Your task to perform on an android device: Search for "custom wallet" on Etsy. Image 0: 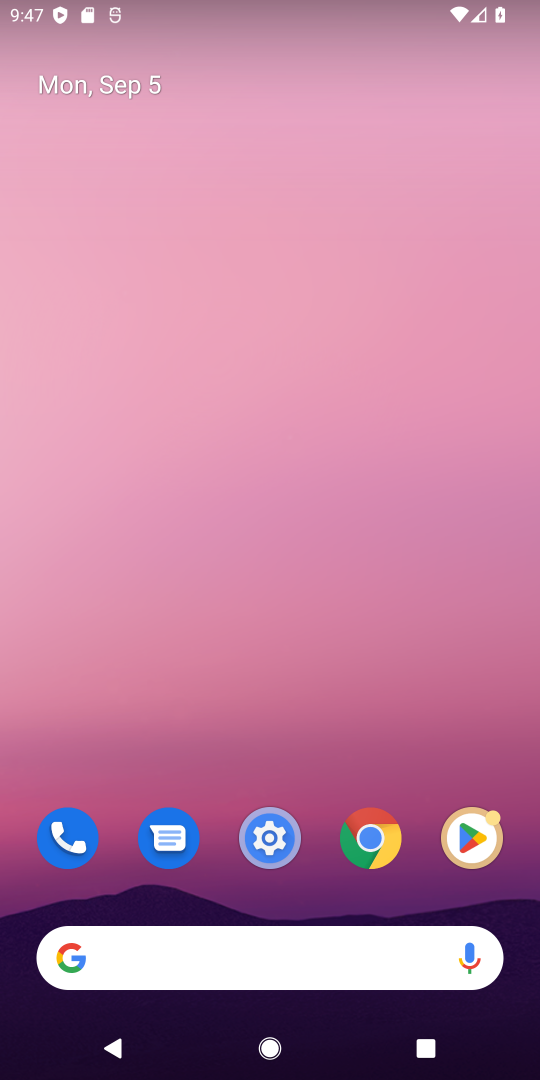
Step 0: click (281, 943)
Your task to perform on an android device: Search for "custom wallet" on Etsy. Image 1: 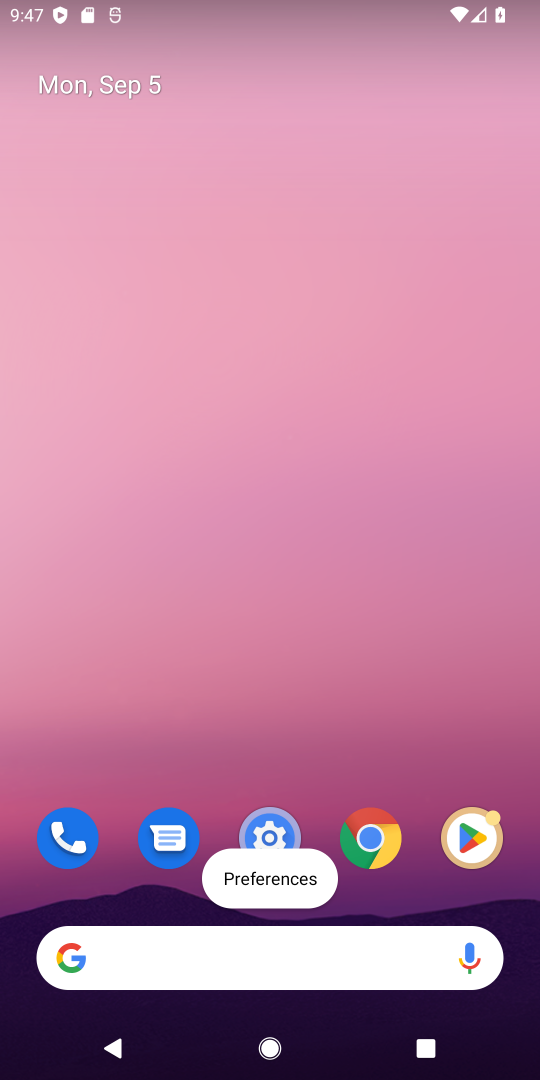
Step 1: click (281, 950)
Your task to perform on an android device: Search for "custom wallet" on Etsy. Image 2: 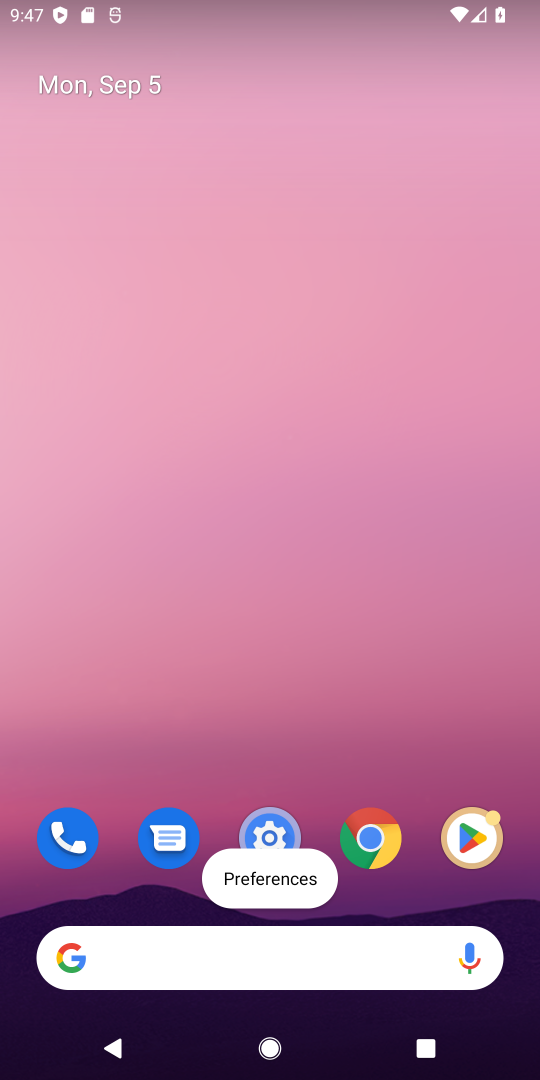
Step 2: click (291, 950)
Your task to perform on an android device: Search for "custom wallet" on Etsy. Image 3: 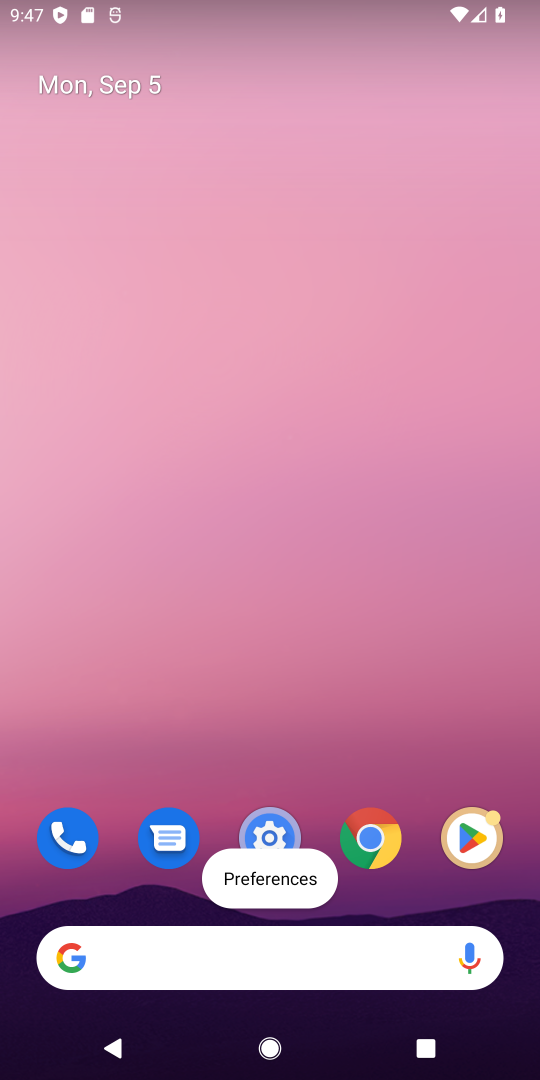
Step 3: click (298, 952)
Your task to perform on an android device: Search for "custom wallet" on Etsy. Image 4: 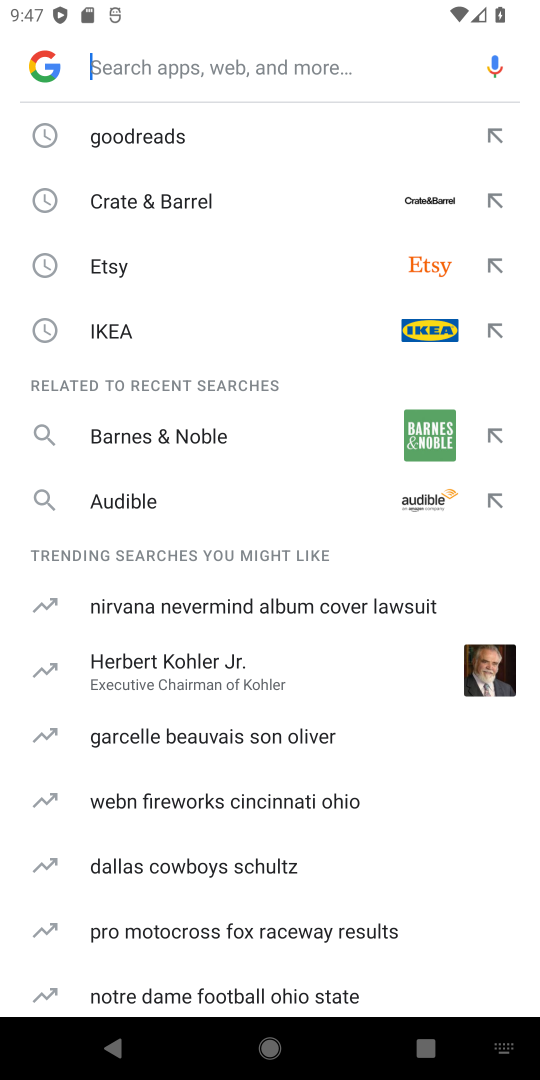
Step 4: click (175, 275)
Your task to perform on an android device: Search for "custom wallet" on Etsy. Image 5: 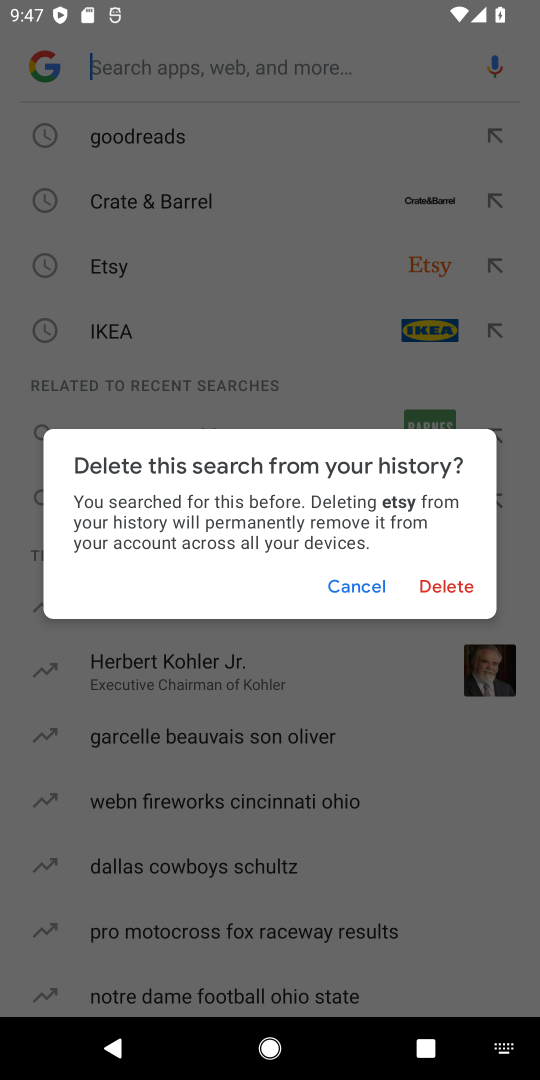
Step 5: click (339, 579)
Your task to perform on an android device: Search for "custom wallet" on Etsy. Image 6: 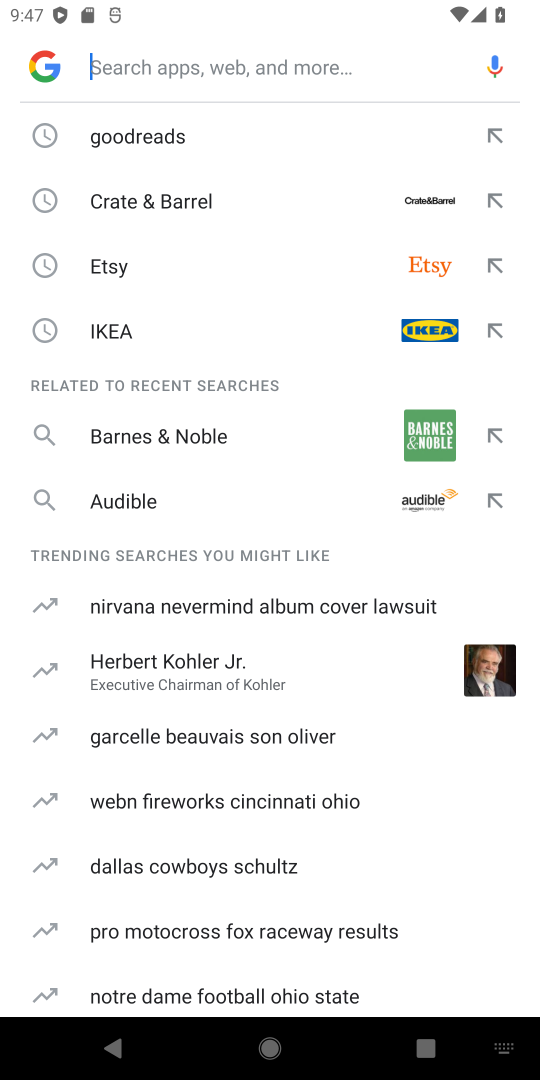
Step 6: click (181, 268)
Your task to perform on an android device: Search for "custom wallet" on Etsy. Image 7: 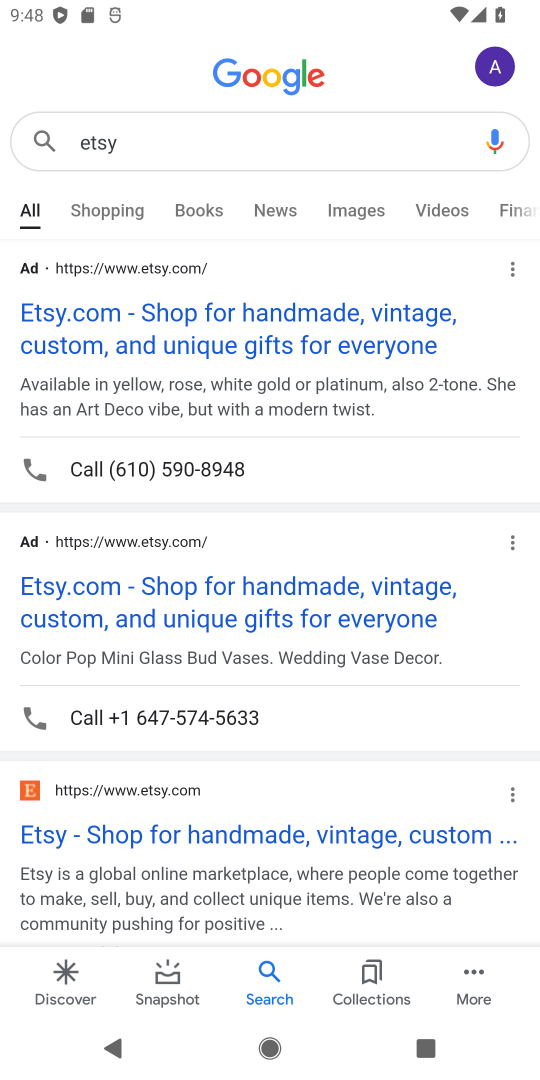
Step 7: click (161, 817)
Your task to perform on an android device: Search for "custom wallet" on Etsy. Image 8: 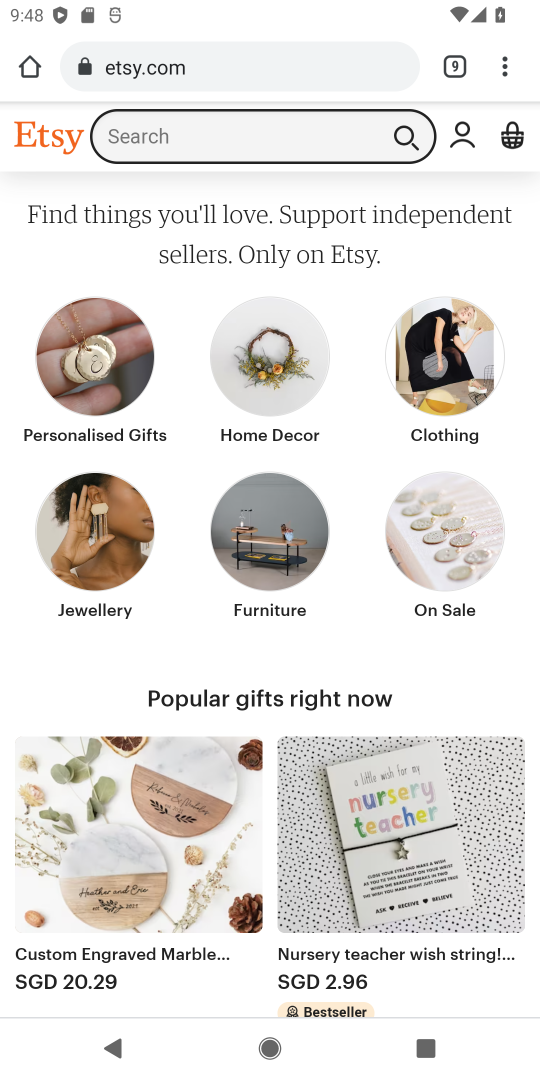
Step 8: click (285, 134)
Your task to perform on an android device: Search for "custom wallet" on Etsy. Image 9: 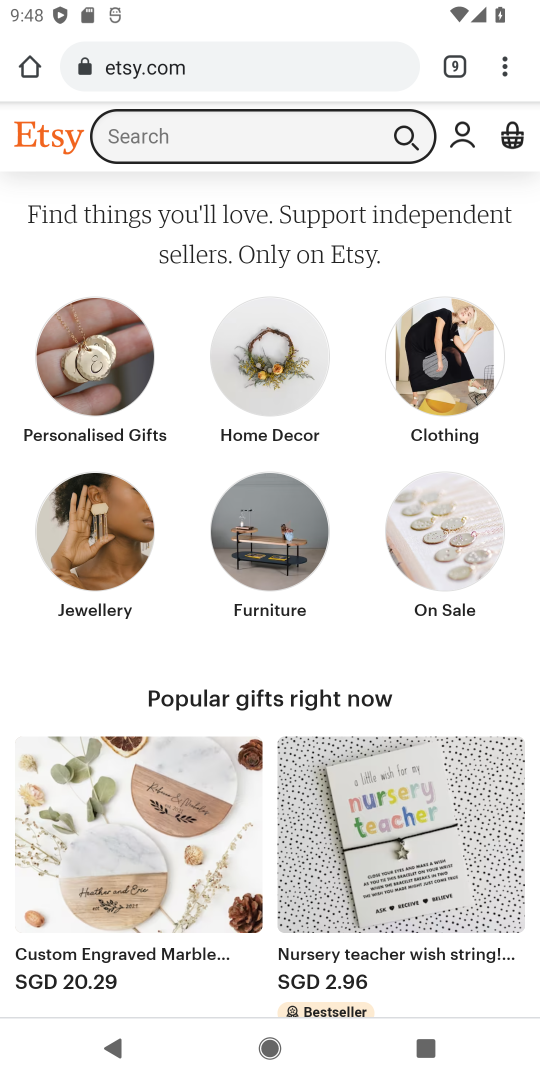
Step 9: click (297, 132)
Your task to perform on an android device: Search for "custom wallet" on Etsy. Image 10: 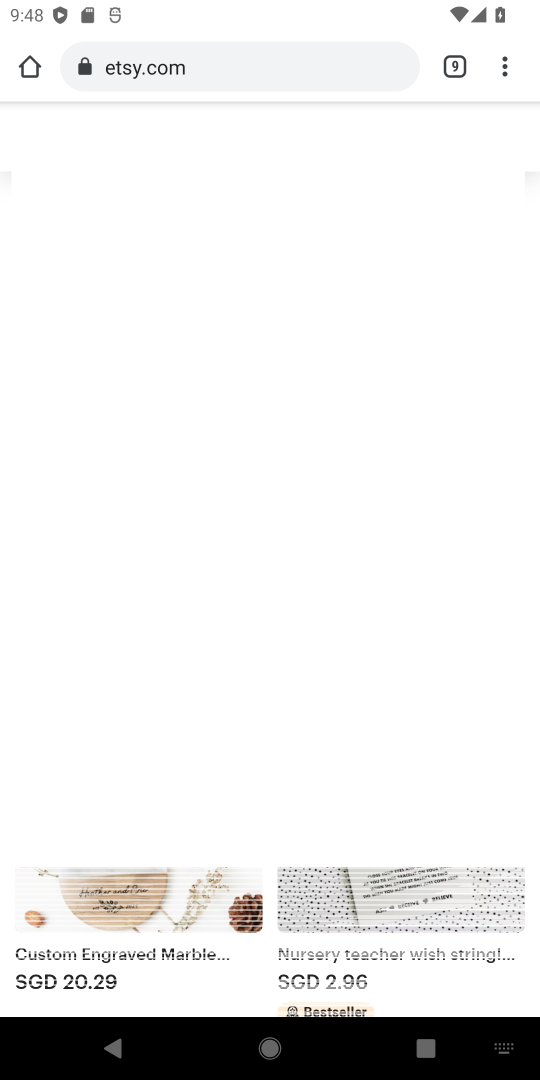
Step 10: type "custom wallet"
Your task to perform on an android device: Search for "custom wallet" on Etsy. Image 11: 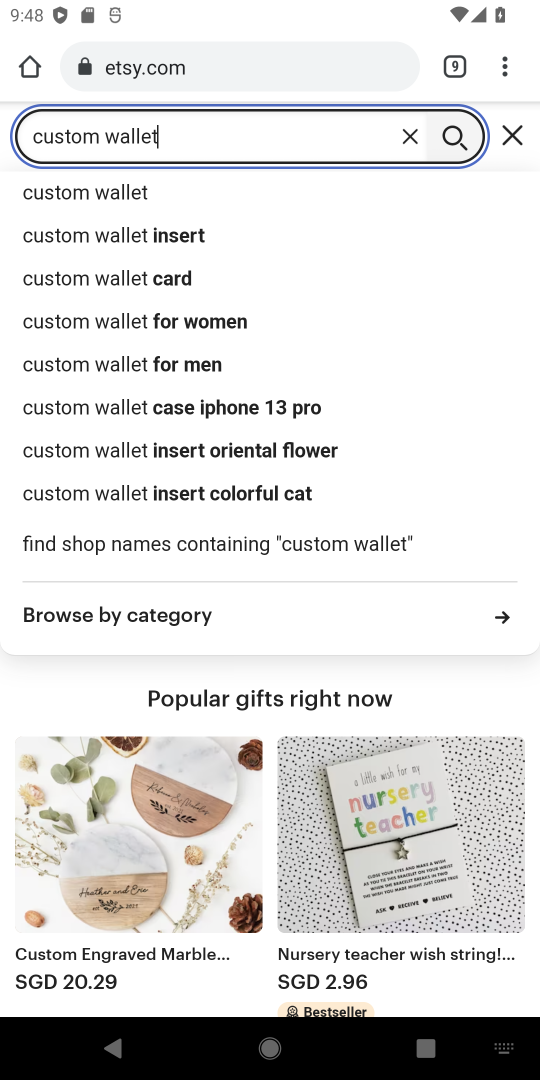
Step 11: click (156, 199)
Your task to perform on an android device: Search for "custom wallet" on Etsy. Image 12: 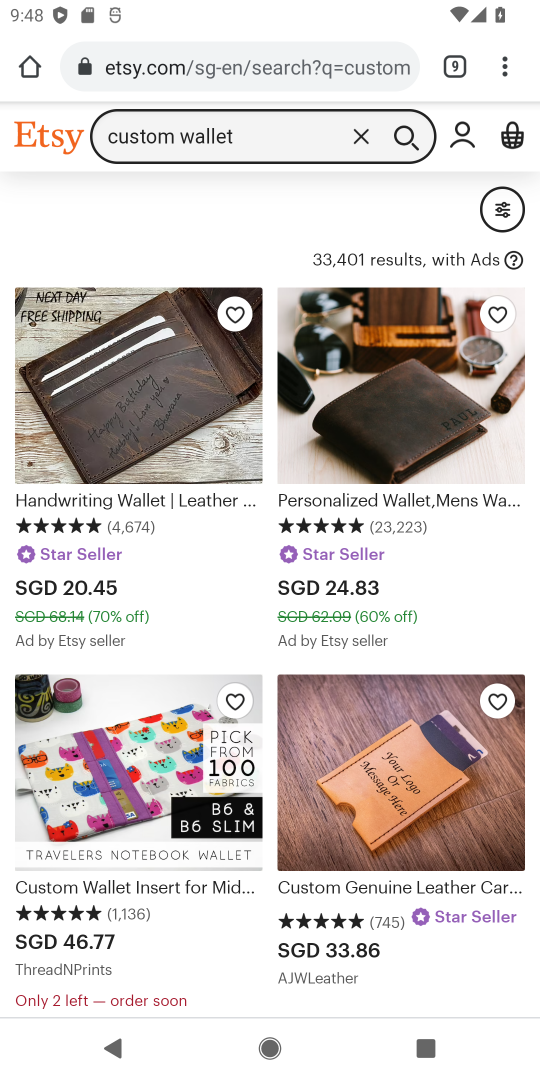
Step 12: task complete